Your task to perform on an android device: Search for Italian restaurants on Maps Image 0: 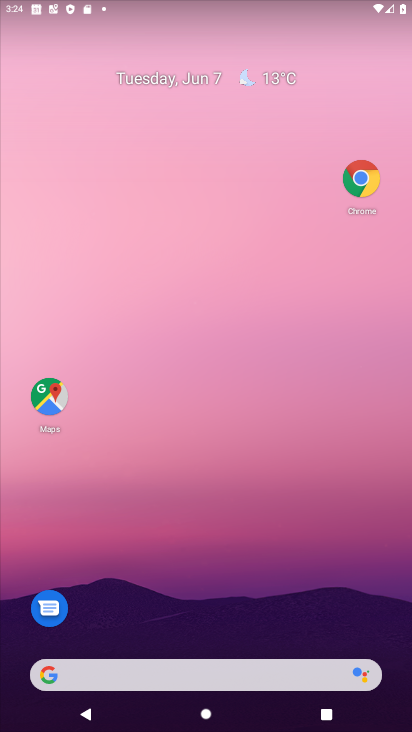
Step 0: click (53, 402)
Your task to perform on an android device: Search for Italian restaurants on Maps Image 1: 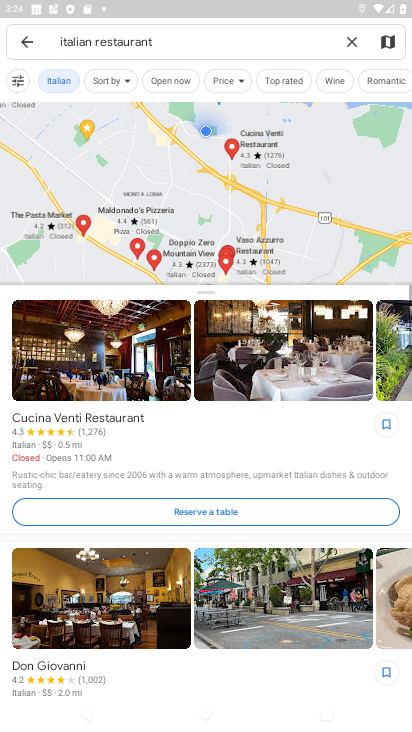
Step 1: task complete